Your task to perform on an android device: change notifications settings Image 0: 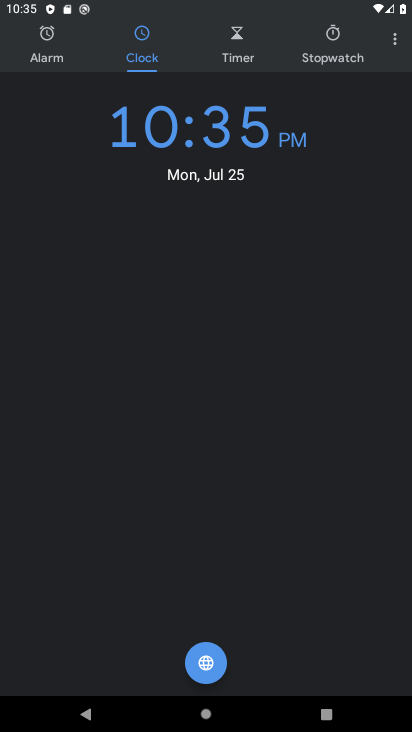
Step 0: press back button
Your task to perform on an android device: change notifications settings Image 1: 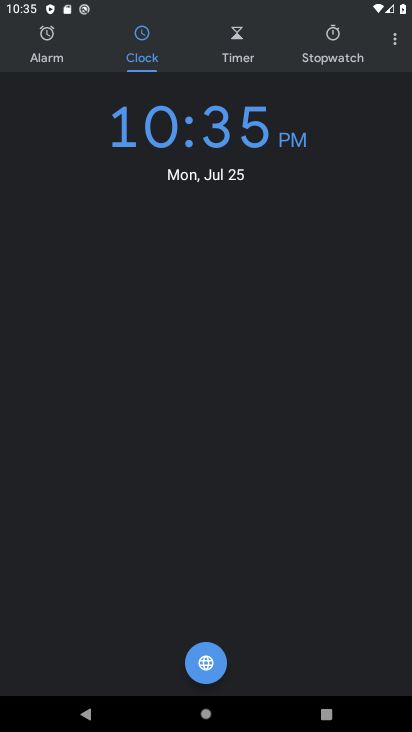
Step 1: press back button
Your task to perform on an android device: change notifications settings Image 2: 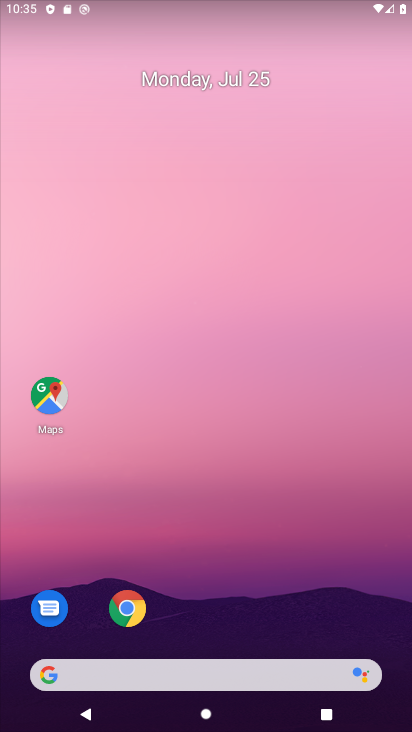
Step 2: drag from (212, 527) to (165, 122)
Your task to perform on an android device: change notifications settings Image 3: 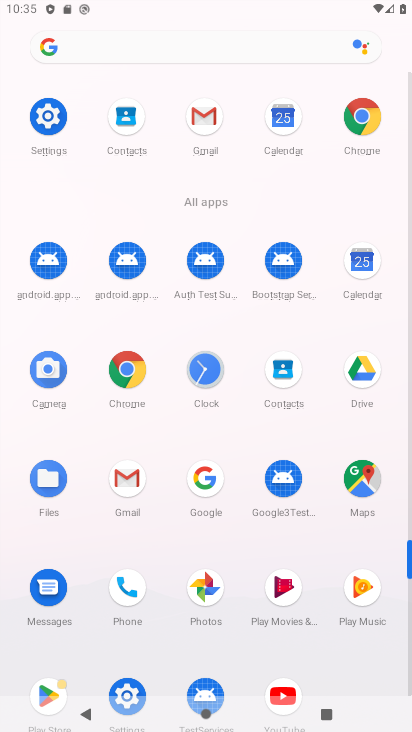
Step 3: drag from (206, 628) to (206, 143)
Your task to perform on an android device: change notifications settings Image 4: 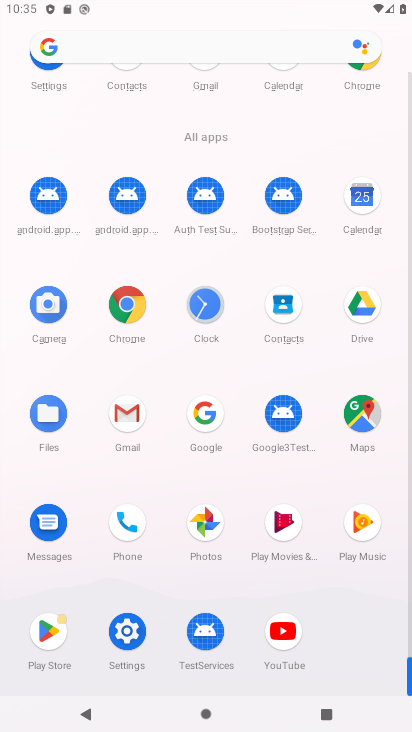
Step 4: click (130, 624)
Your task to perform on an android device: change notifications settings Image 5: 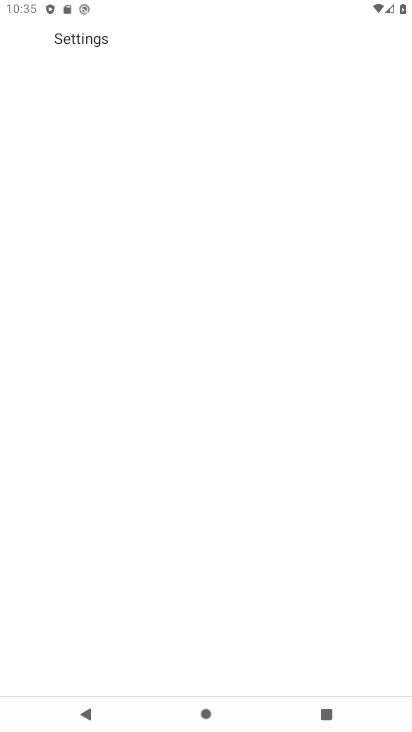
Step 5: click (129, 626)
Your task to perform on an android device: change notifications settings Image 6: 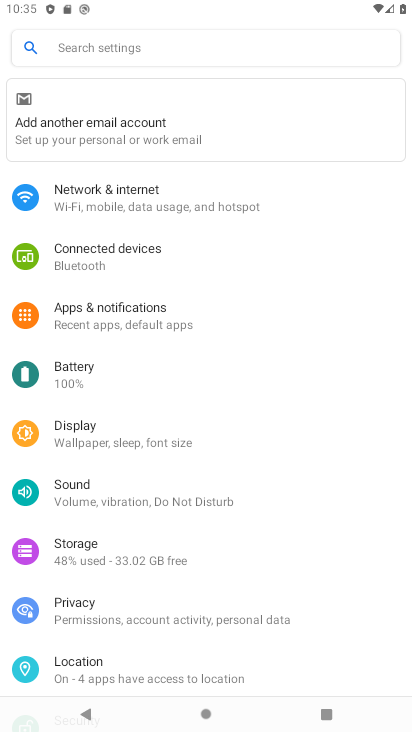
Step 6: click (122, 303)
Your task to perform on an android device: change notifications settings Image 7: 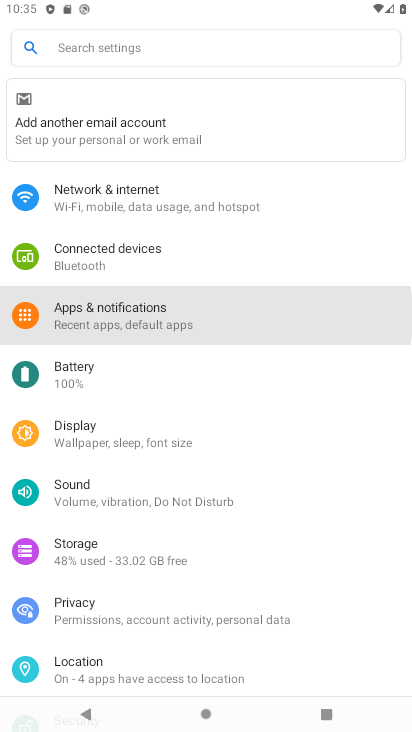
Step 7: click (122, 302)
Your task to perform on an android device: change notifications settings Image 8: 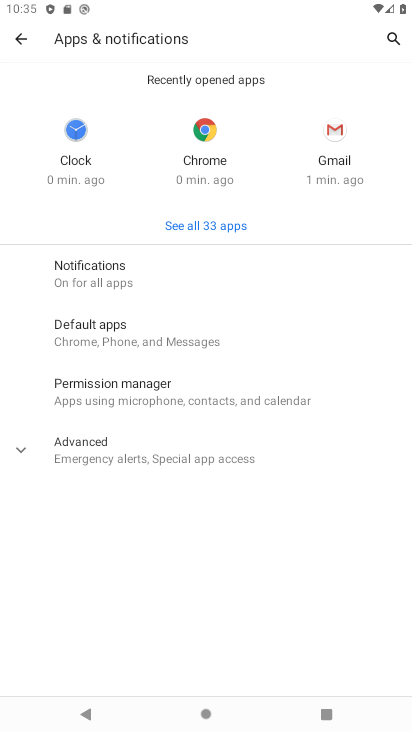
Step 8: click (95, 290)
Your task to perform on an android device: change notifications settings Image 9: 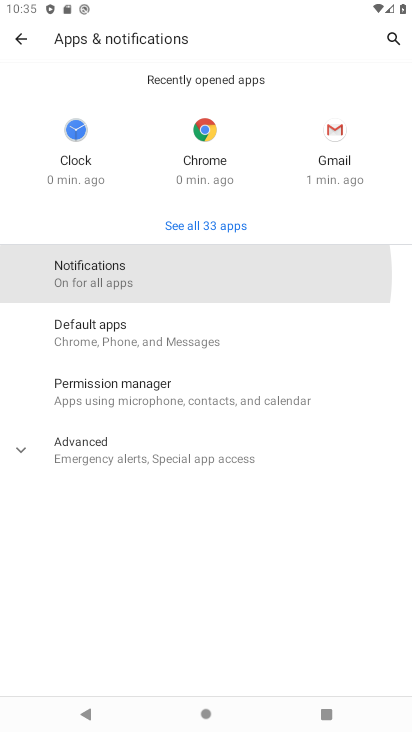
Step 9: click (95, 285)
Your task to perform on an android device: change notifications settings Image 10: 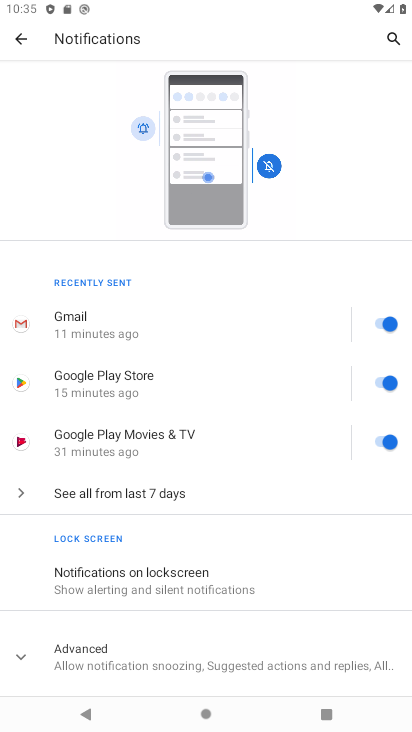
Step 10: drag from (155, 567) to (198, 155)
Your task to perform on an android device: change notifications settings Image 11: 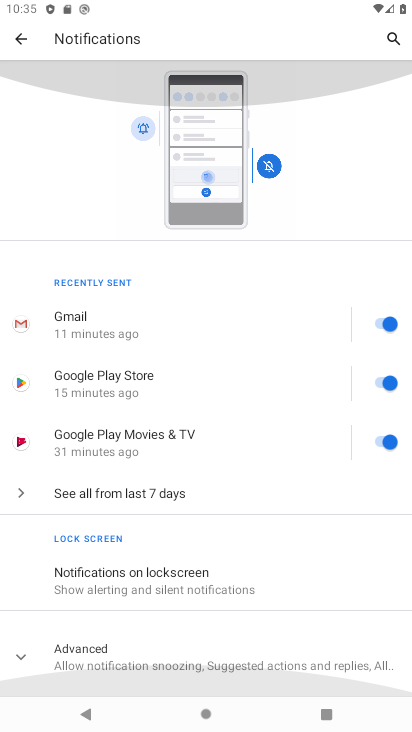
Step 11: drag from (217, 315) to (220, 85)
Your task to perform on an android device: change notifications settings Image 12: 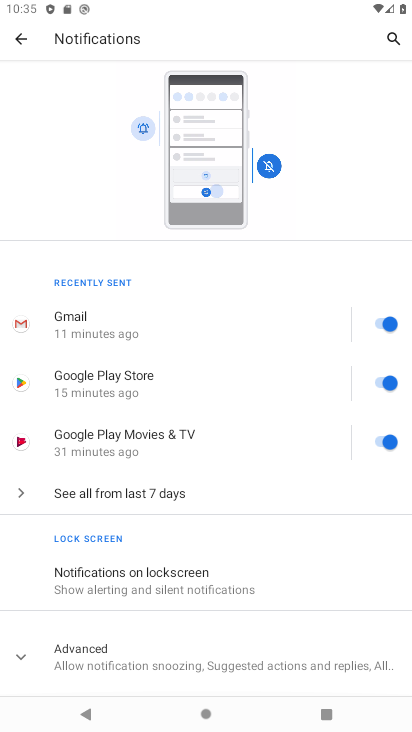
Step 12: drag from (224, 597) to (267, 206)
Your task to perform on an android device: change notifications settings Image 13: 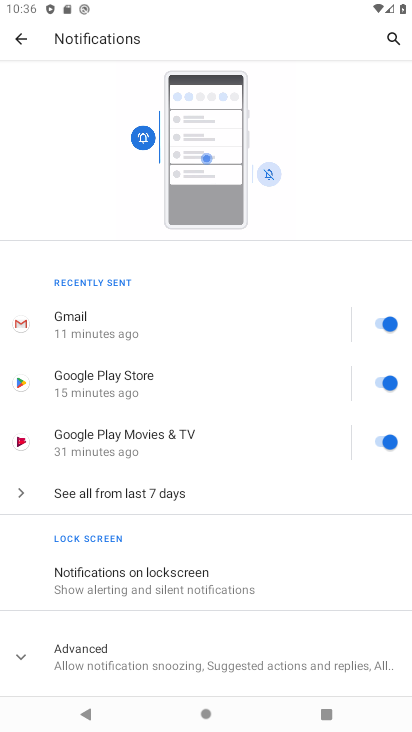
Step 13: click (387, 325)
Your task to perform on an android device: change notifications settings Image 14: 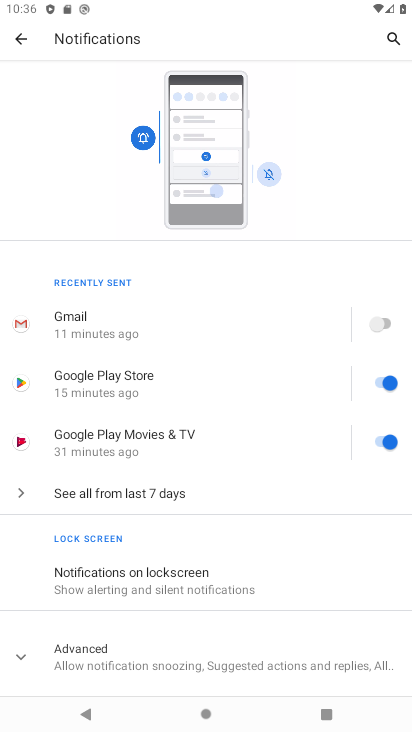
Step 14: click (389, 385)
Your task to perform on an android device: change notifications settings Image 15: 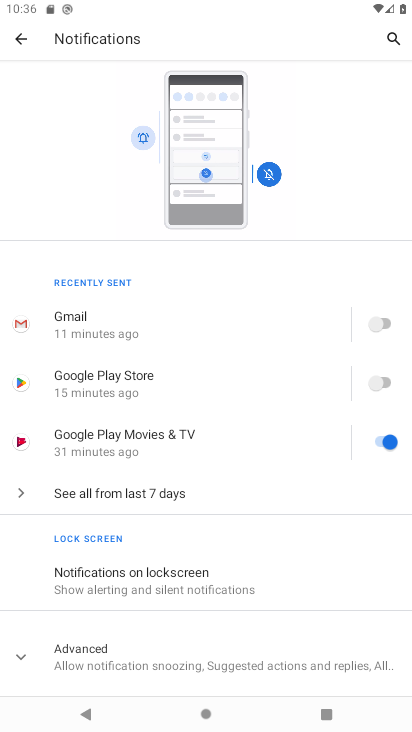
Step 15: click (379, 447)
Your task to perform on an android device: change notifications settings Image 16: 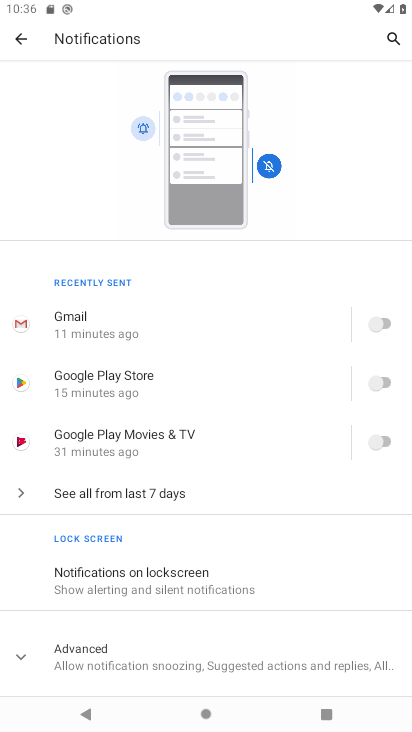
Step 16: task complete